Your task to perform on an android device: change notification settings in the gmail app Image 0: 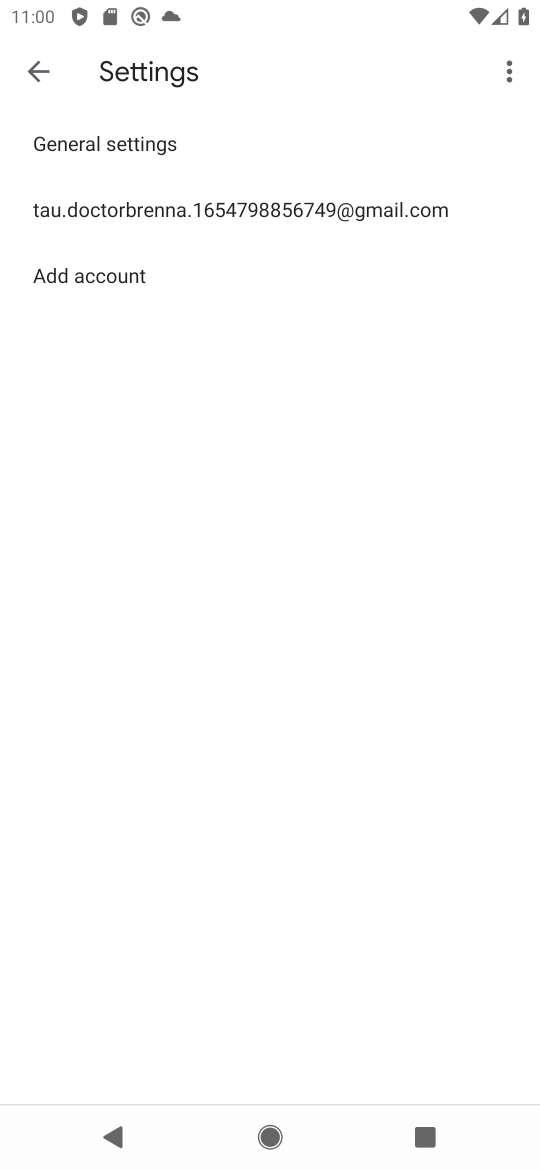
Step 0: press home button
Your task to perform on an android device: change notification settings in the gmail app Image 1: 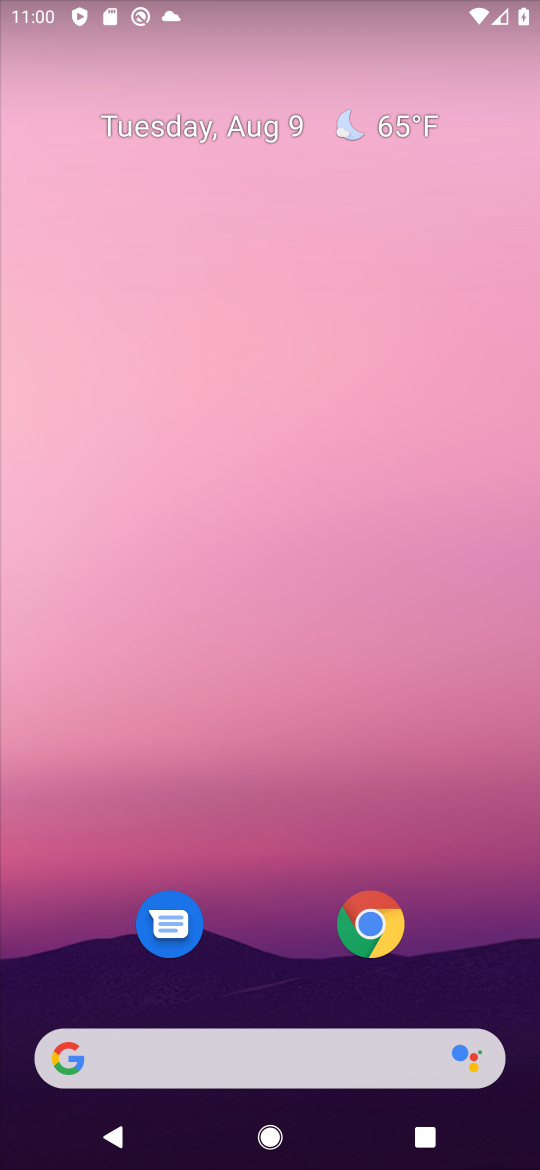
Step 1: drag from (290, 929) to (364, 55)
Your task to perform on an android device: change notification settings in the gmail app Image 2: 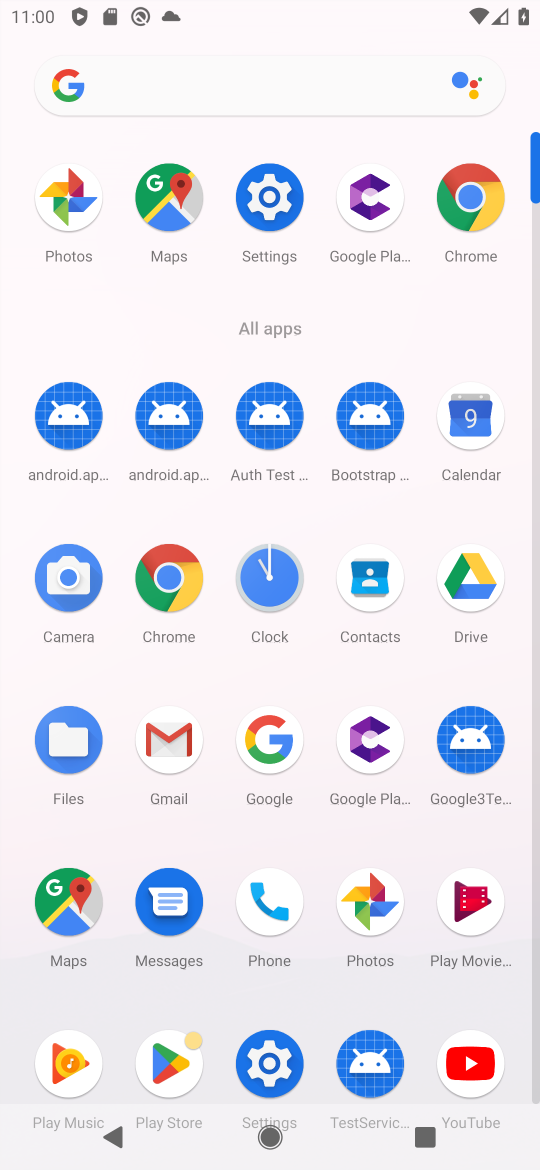
Step 2: click (179, 735)
Your task to perform on an android device: change notification settings in the gmail app Image 3: 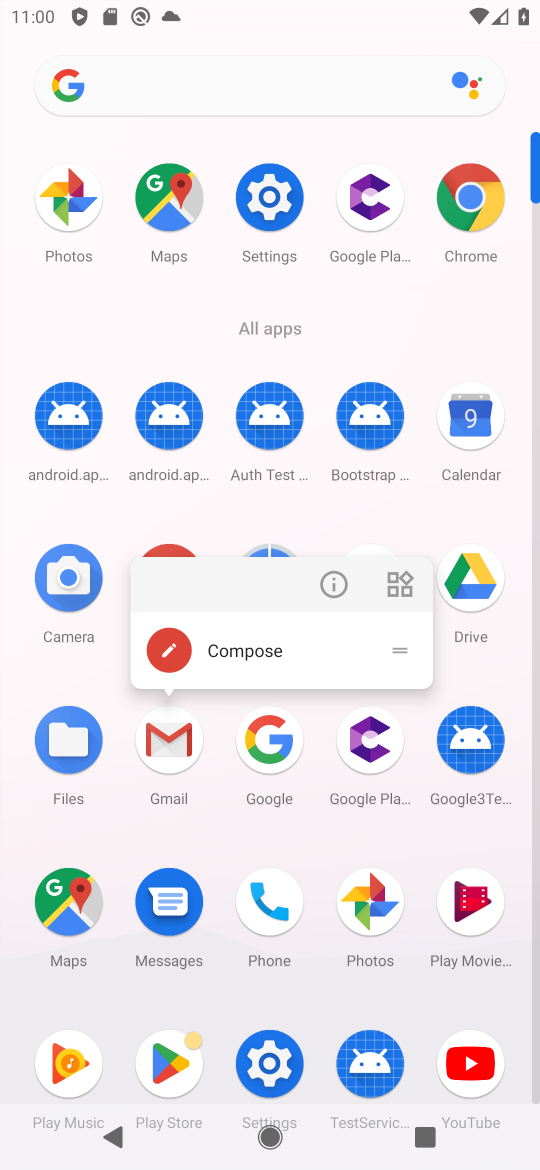
Step 3: click (336, 574)
Your task to perform on an android device: change notification settings in the gmail app Image 4: 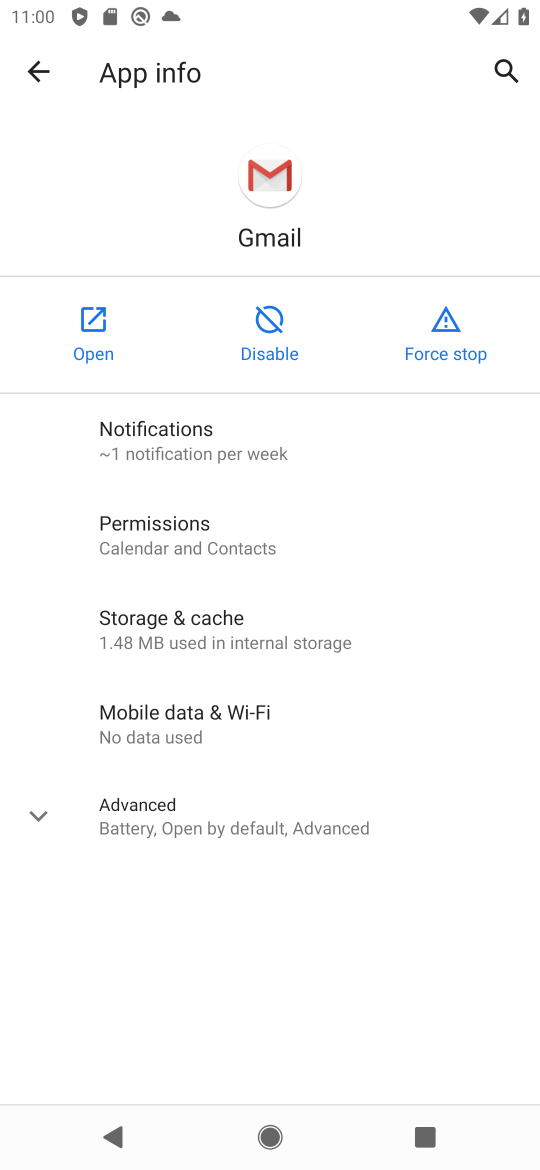
Step 4: click (199, 417)
Your task to perform on an android device: change notification settings in the gmail app Image 5: 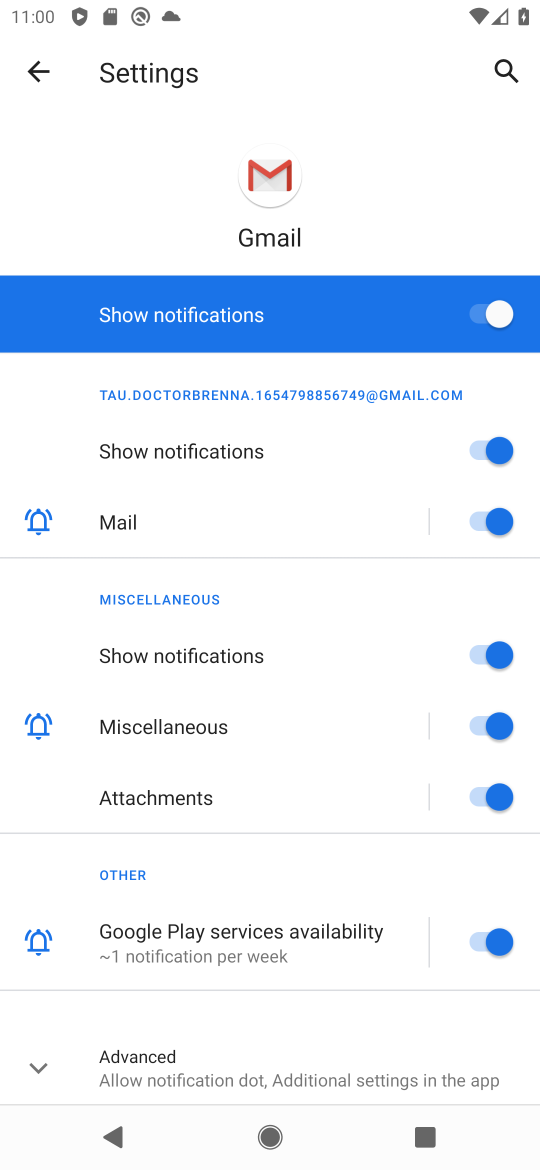
Step 5: click (398, 320)
Your task to perform on an android device: change notification settings in the gmail app Image 6: 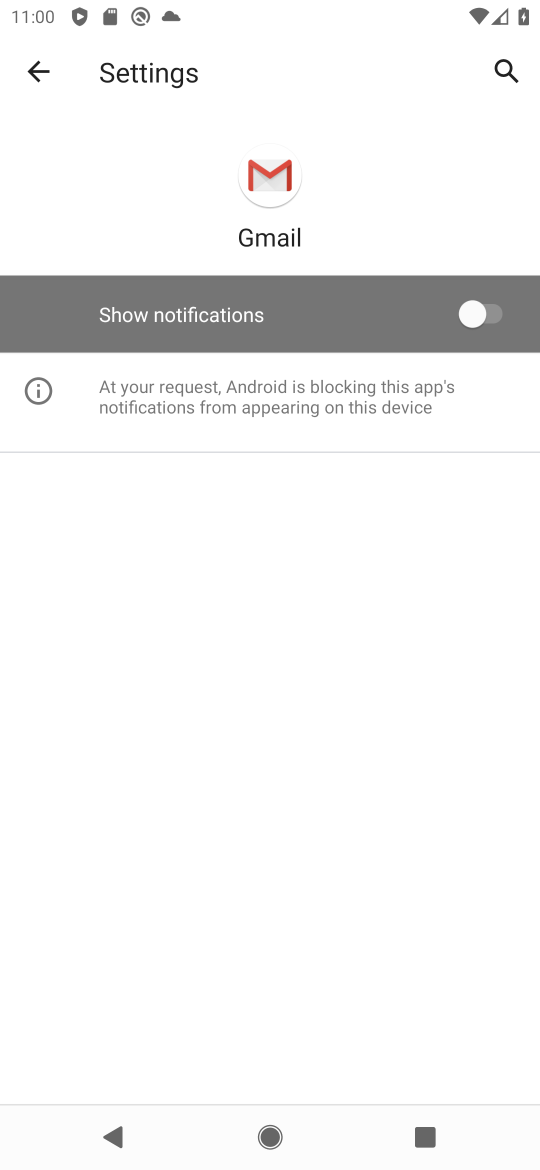
Step 6: task complete